Your task to perform on an android device: change the clock display to show seconds Image 0: 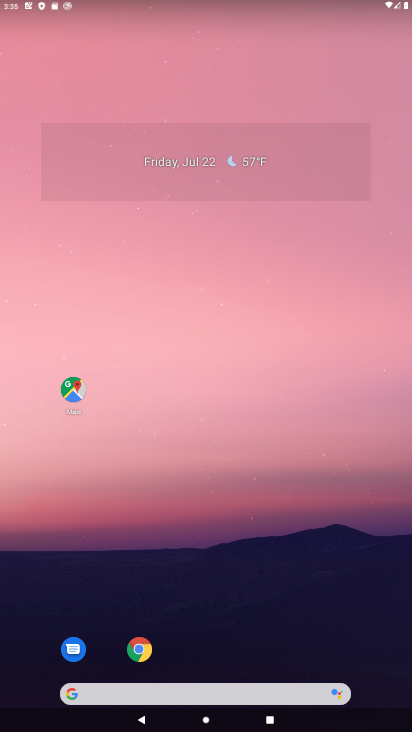
Step 0: drag from (22, 589) to (265, 19)
Your task to perform on an android device: change the clock display to show seconds Image 1: 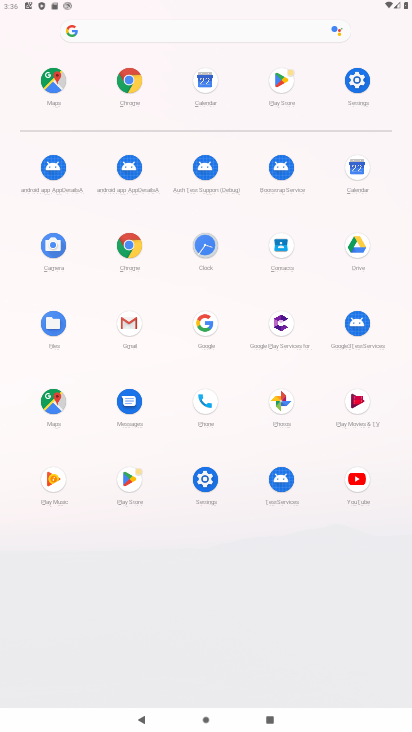
Step 1: click (209, 249)
Your task to perform on an android device: change the clock display to show seconds Image 2: 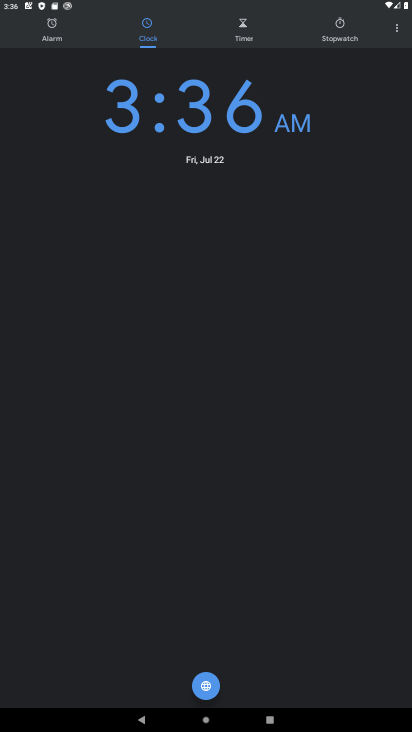
Step 2: click (393, 28)
Your task to perform on an android device: change the clock display to show seconds Image 3: 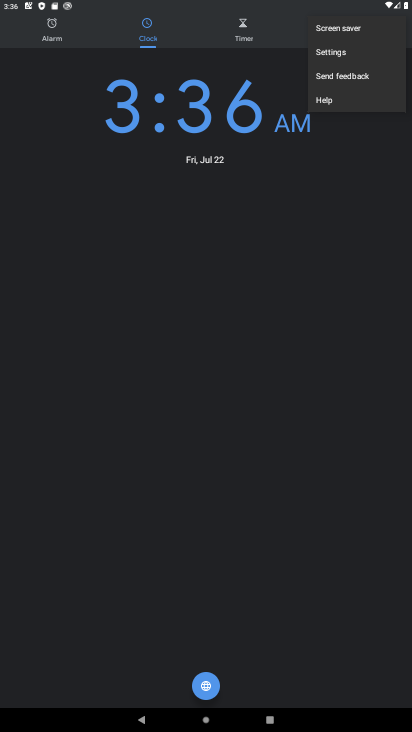
Step 3: click (333, 51)
Your task to perform on an android device: change the clock display to show seconds Image 4: 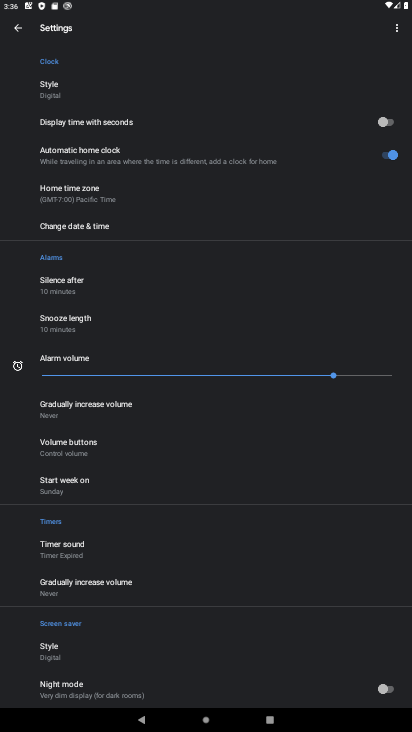
Step 4: click (384, 129)
Your task to perform on an android device: change the clock display to show seconds Image 5: 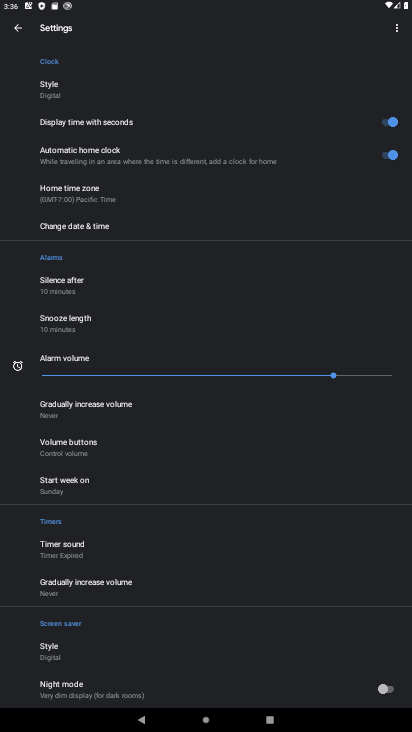
Step 5: task complete